Your task to perform on an android device: turn pop-ups on in chrome Image 0: 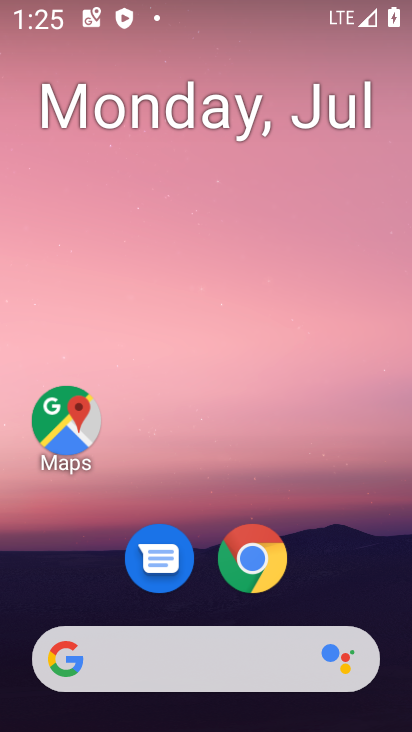
Step 0: press home button
Your task to perform on an android device: turn pop-ups on in chrome Image 1: 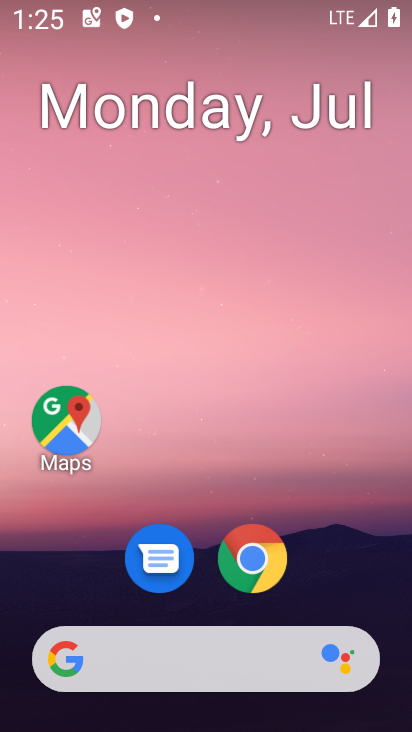
Step 1: drag from (360, 572) to (374, 148)
Your task to perform on an android device: turn pop-ups on in chrome Image 2: 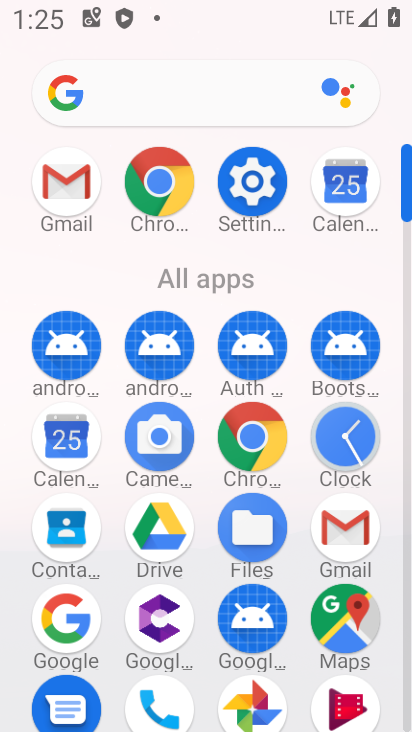
Step 2: click (249, 437)
Your task to perform on an android device: turn pop-ups on in chrome Image 3: 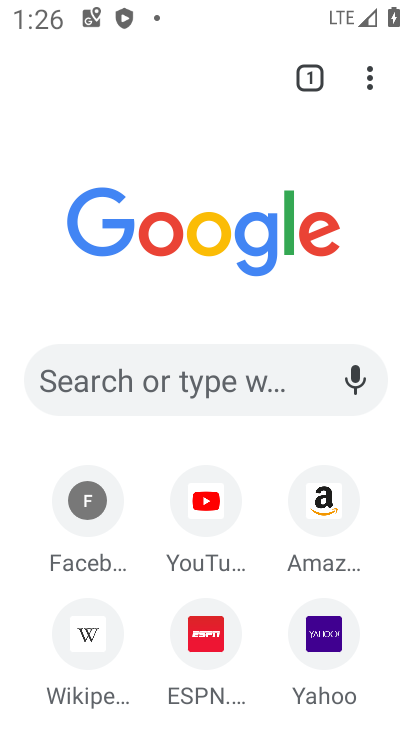
Step 3: click (370, 87)
Your task to perform on an android device: turn pop-ups on in chrome Image 4: 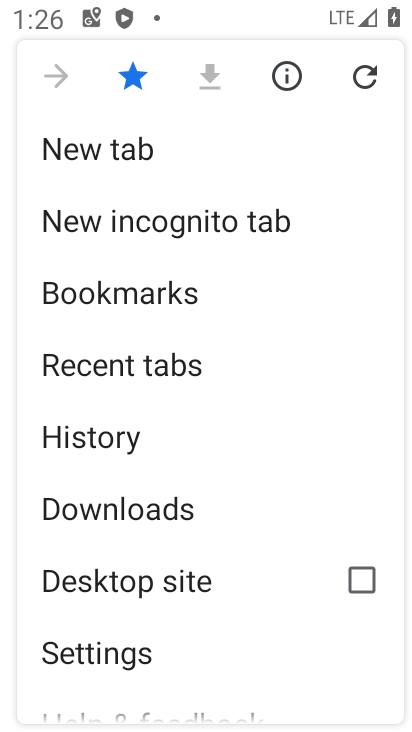
Step 4: drag from (310, 405) to (308, 301)
Your task to perform on an android device: turn pop-ups on in chrome Image 5: 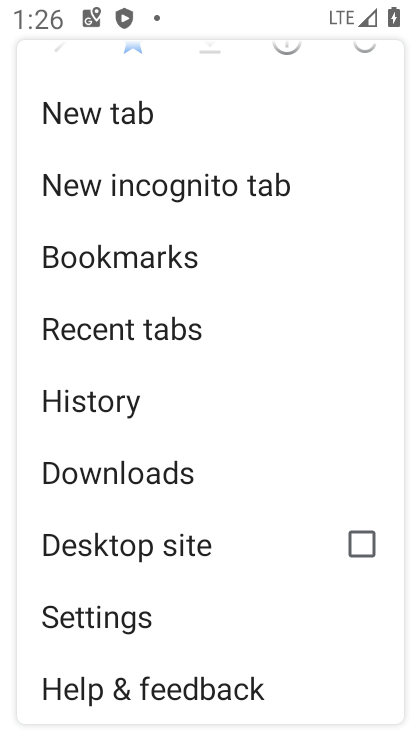
Step 5: click (221, 603)
Your task to perform on an android device: turn pop-ups on in chrome Image 6: 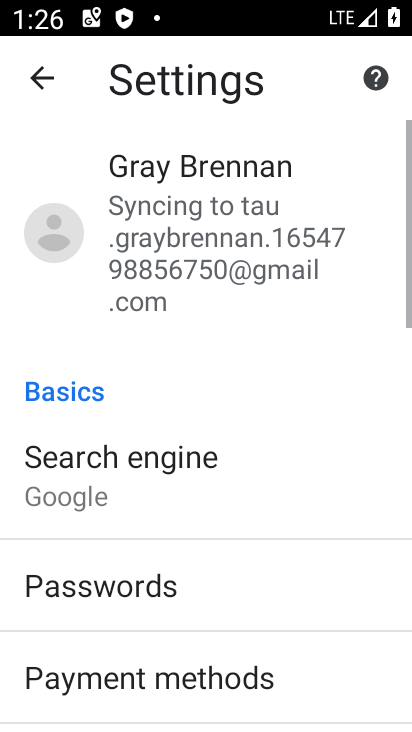
Step 6: drag from (241, 600) to (257, 485)
Your task to perform on an android device: turn pop-ups on in chrome Image 7: 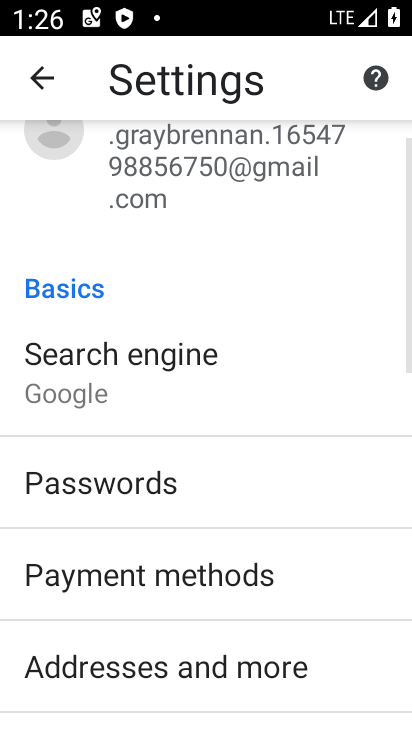
Step 7: drag from (323, 599) to (356, 510)
Your task to perform on an android device: turn pop-ups on in chrome Image 8: 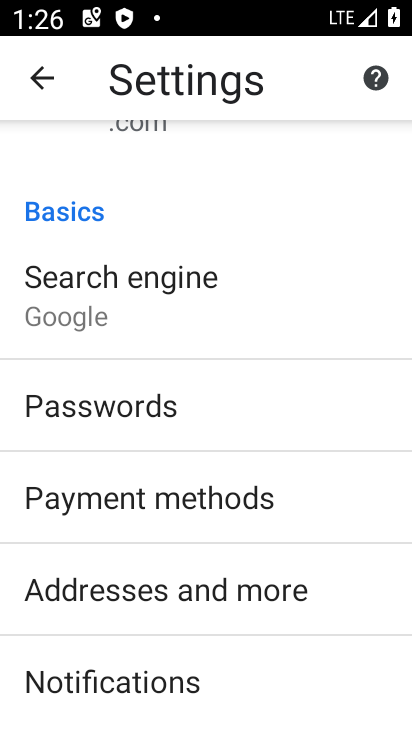
Step 8: drag from (354, 627) to (340, 528)
Your task to perform on an android device: turn pop-ups on in chrome Image 9: 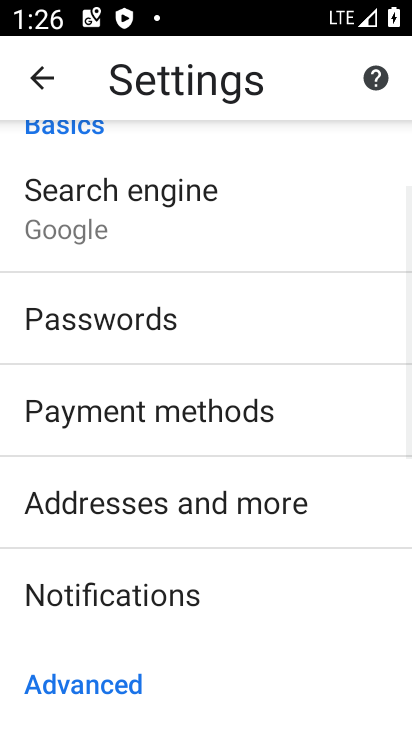
Step 9: drag from (337, 610) to (333, 526)
Your task to perform on an android device: turn pop-ups on in chrome Image 10: 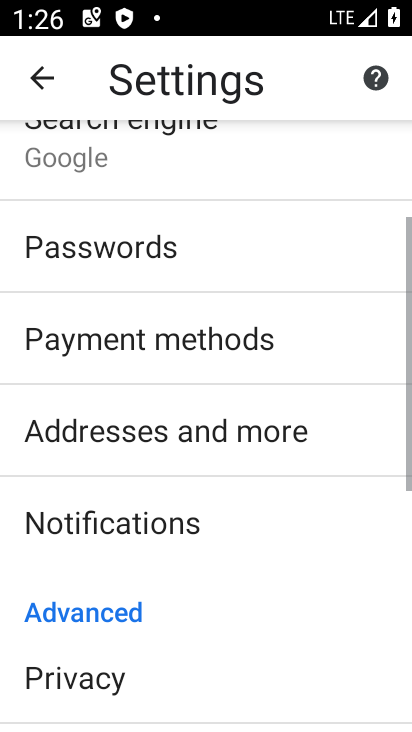
Step 10: drag from (318, 619) to (316, 530)
Your task to perform on an android device: turn pop-ups on in chrome Image 11: 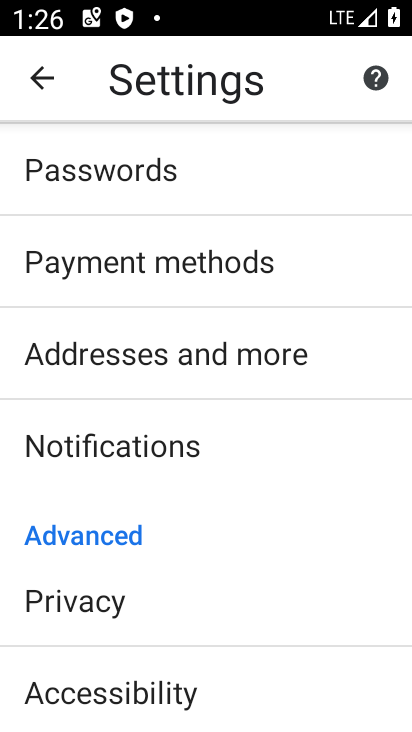
Step 11: drag from (311, 621) to (309, 512)
Your task to perform on an android device: turn pop-ups on in chrome Image 12: 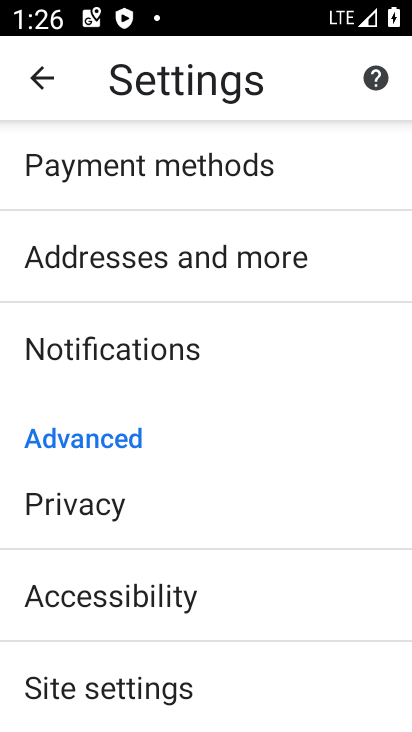
Step 12: drag from (322, 610) to (312, 473)
Your task to perform on an android device: turn pop-ups on in chrome Image 13: 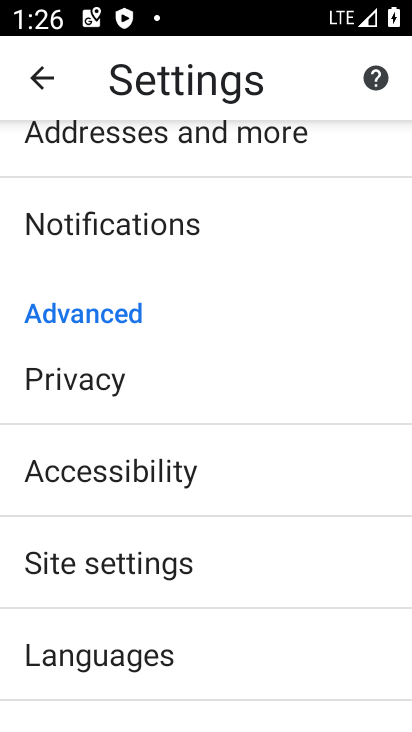
Step 13: click (315, 562)
Your task to perform on an android device: turn pop-ups on in chrome Image 14: 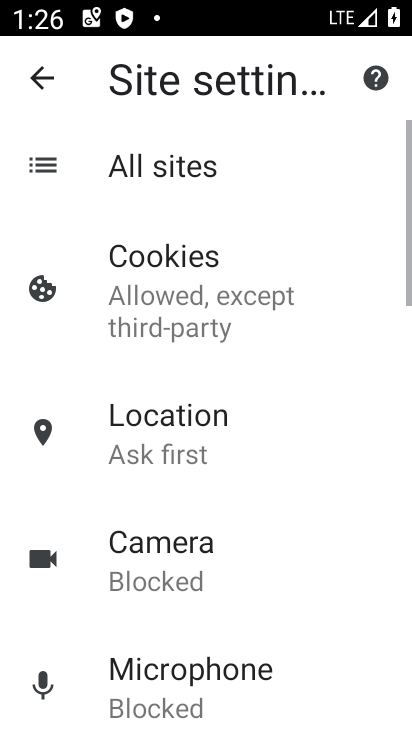
Step 14: drag from (315, 562) to (323, 482)
Your task to perform on an android device: turn pop-ups on in chrome Image 15: 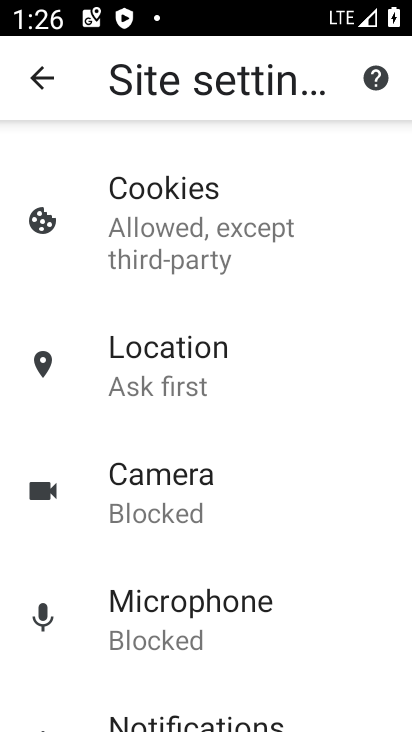
Step 15: drag from (320, 606) to (323, 457)
Your task to perform on an android device: turn pop-ups on in chrome Image 16: 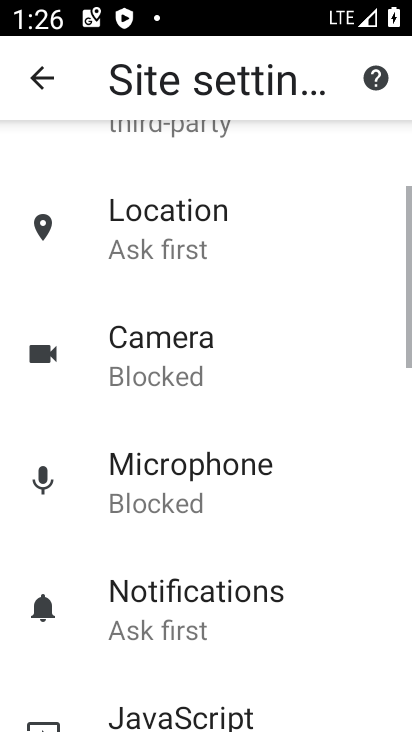
Step 16: drag from (323, 603) to (322, 466)
Your task to perform on an android device: turn pop-ups on in chrome Image 17: 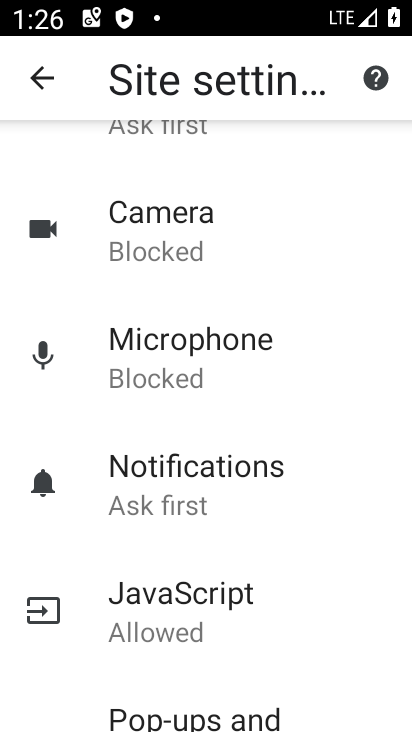
Step 17: drag from (321, 606) to (321, 500)
Your task to perform on an android device: turn pop-ups on in chrome Image 18: 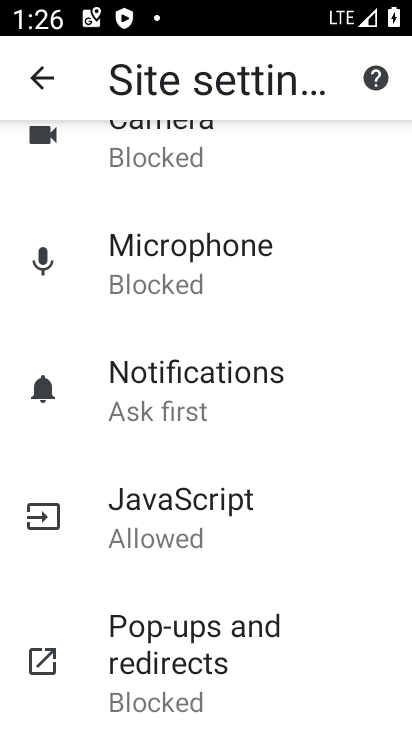
Step 18: drag from (320, 657) to (323, 515)
Your task to perform on an android device: turn pop-ups on in chrome Image 19: 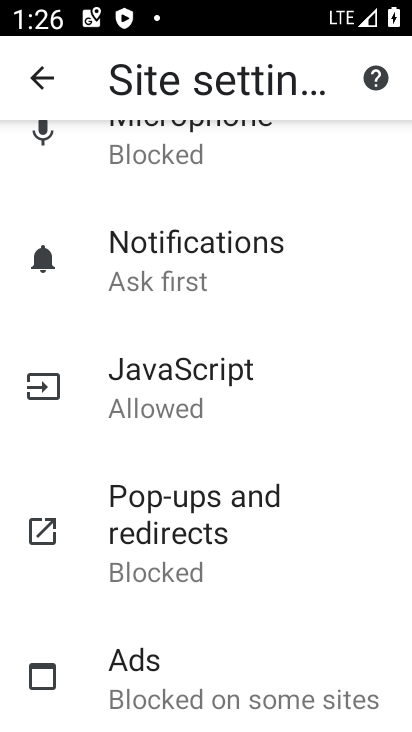
Step 19: drag from (302, 618) to (301, 515)
Your task to perform on an android device: turn pop-ups on in chrome Image 20: 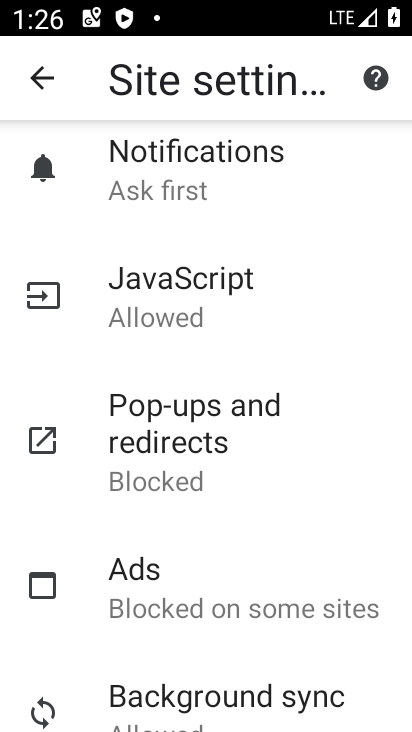
Step 20: click (297, 474)
Your task to perform on an android device: turn pop-ups on in chrome Image 21: 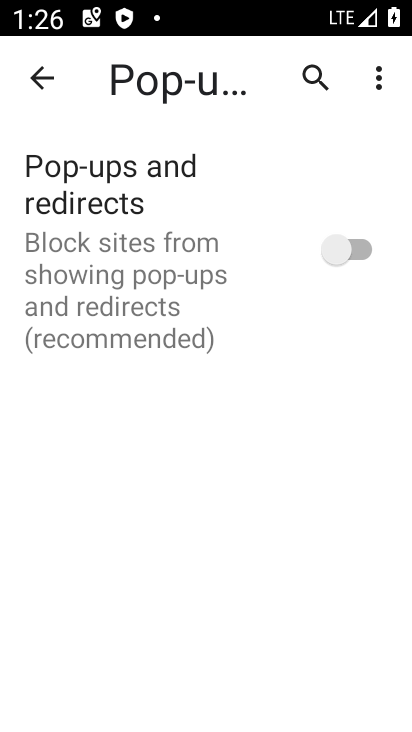
Step 21: click (332, 241)
Your task to perform on an android device: turn pop-ups on in chrome Image 22: 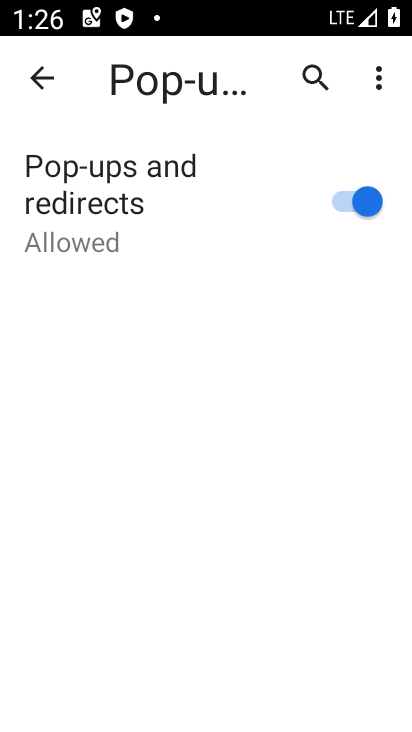
Step 22: task complete